Your task to perform on an android device: toggle javascript in the chrome app Image 0: 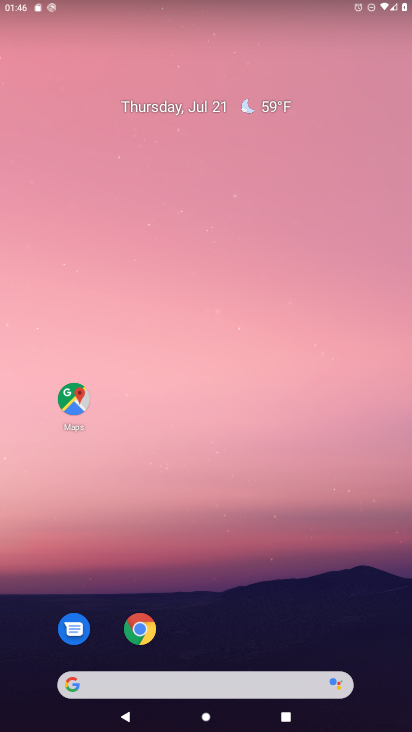
Step 0: click (141, 630)
Your task to perform on an android device: toggle javascript in the chrome app Image 1: 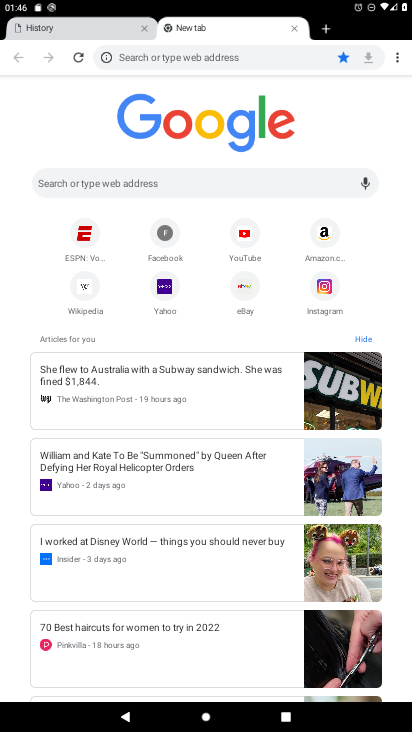
Step 1: click (396, 62)
Your task to perform on an android device: toggle javascript in the chrome app Image 2: 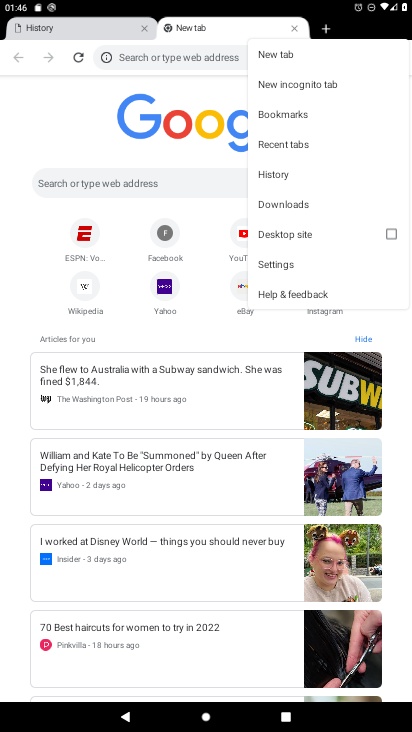
Step 2: click (273, 264)
Your task to perform on an android device: toggle javascript in the chrome app Image 3: 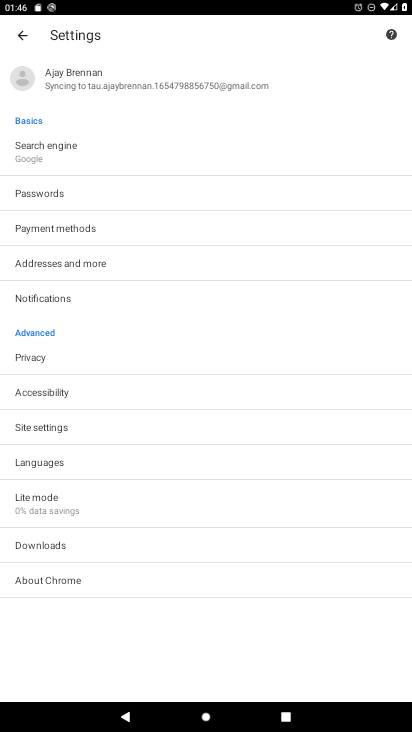
Step 3: click (55, 423)
Your task to perform on an android device: toggle javascript in the chrome app Image 4: 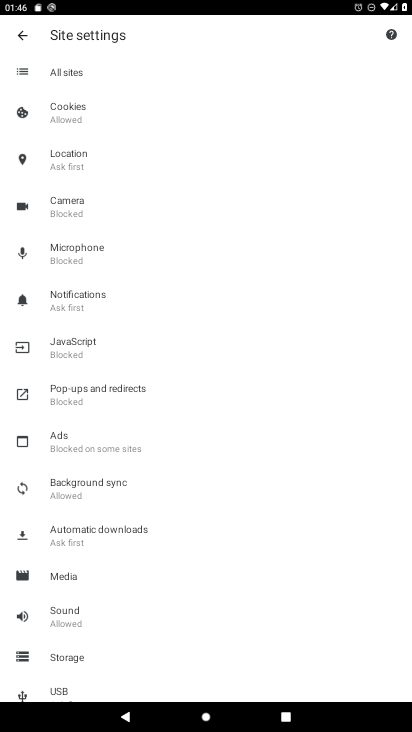
Step 4: click (65, 340)
Your task to perform on an android device: toggle javascript in the chrome app Image 5: 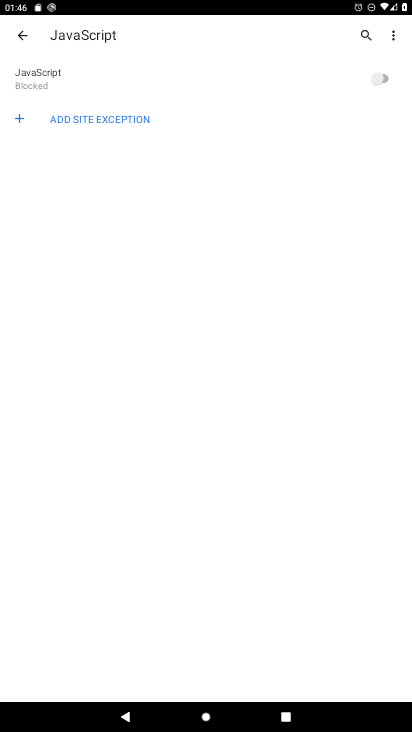
Step 5: click (386, 80)
Your task to perform on an android device: toggle javascript in the chrome app Image 6: 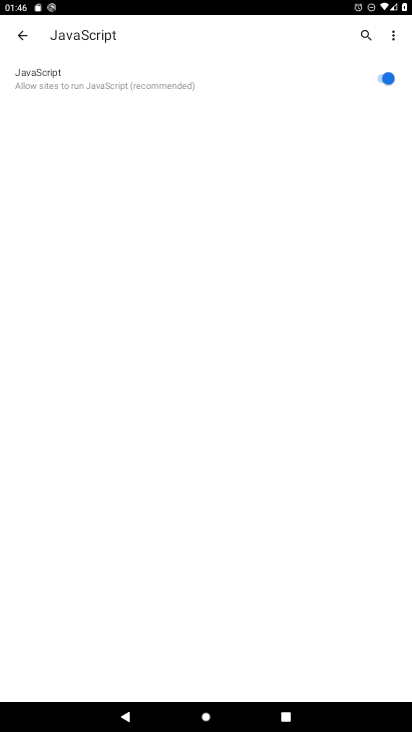
Step 6: task complete